Your task to perform on an android device: allow cookies in the chrome app Image 0: 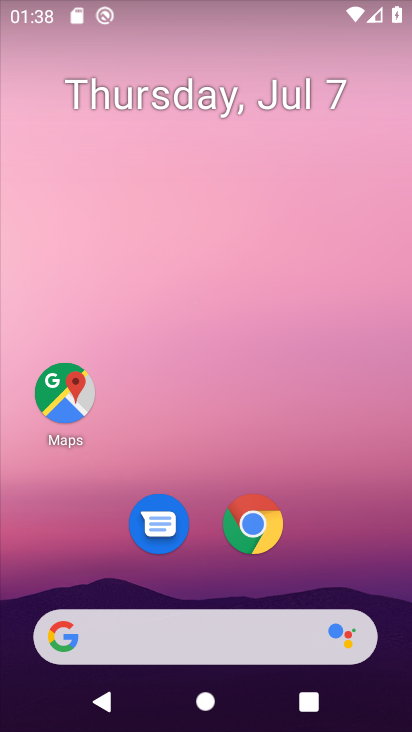
Step 0: click (254, 529)
Your task to perform on an android device: allow cookies in the chrome app Image 1: 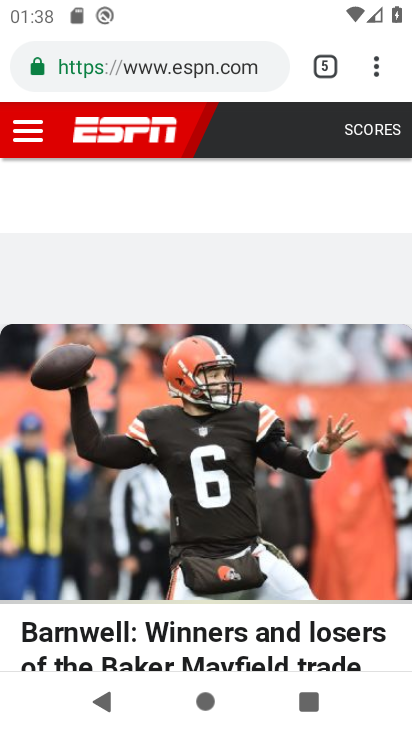
Step 1: click (371, 63)
Your task to perform on an android device: allow cookies in the chrome app Image 2: 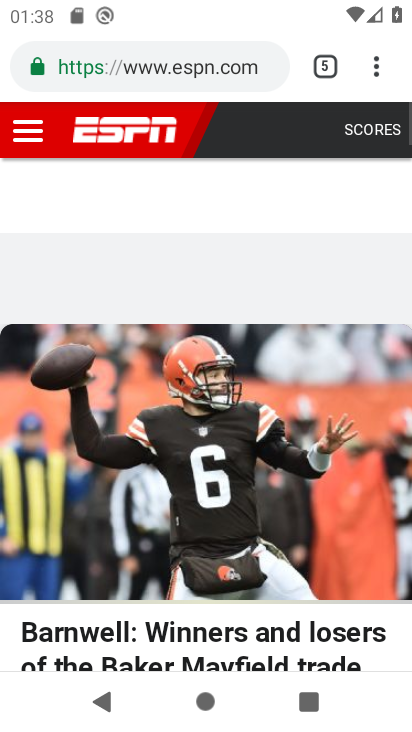
Step 2: click (371, 64)
Your task to perform on an android device: allow cookies in the chrome app Image 3: 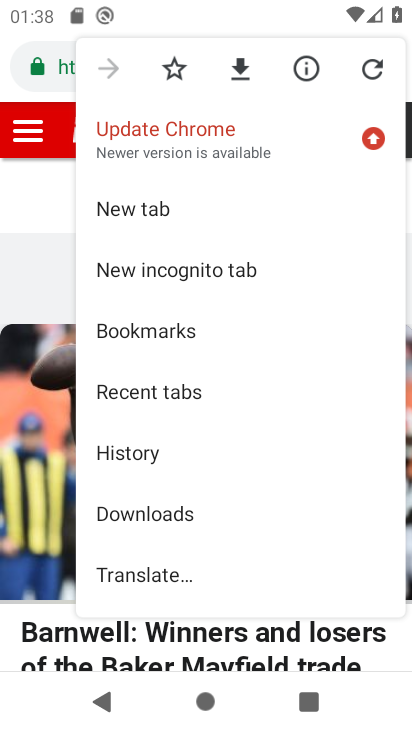
Step 3: drag from (306, 536) to (250, 134)
Your task to perform on an android device: allow cookies in the chrome app Image 4: 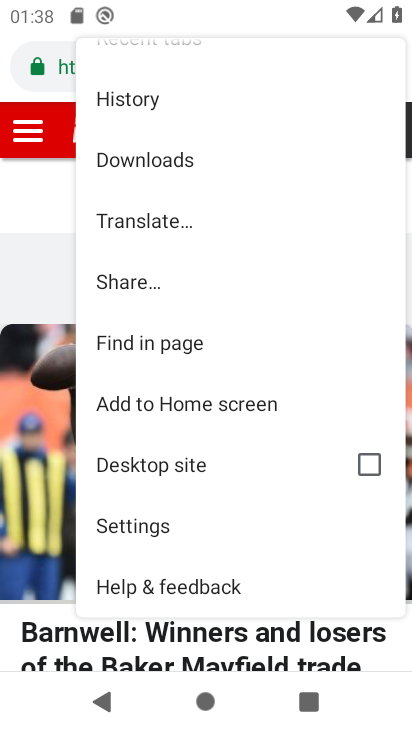
Step 4: click (162, 522)
Your task to perform on an android device: allow cookies in the chrome app Image 5: 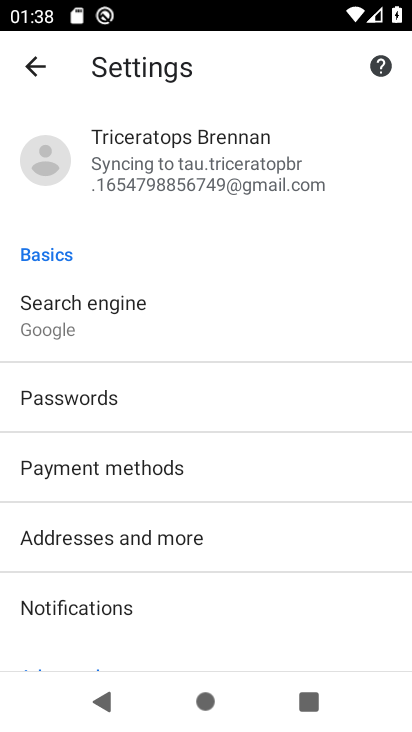
Step 5: drag from (262, 541) to (248, 170)
Your task to perform on an android device: allow cookies in the chrome app Image 6: 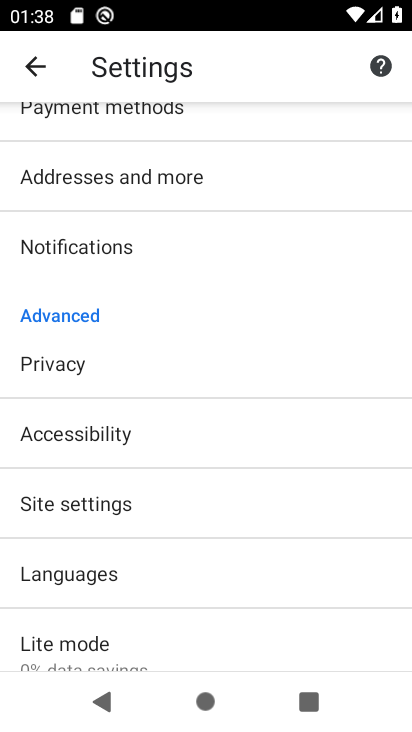
Step 6: click (115, 499)
Your task to perform on an android device: allow cookies in the chrome app Image 7: 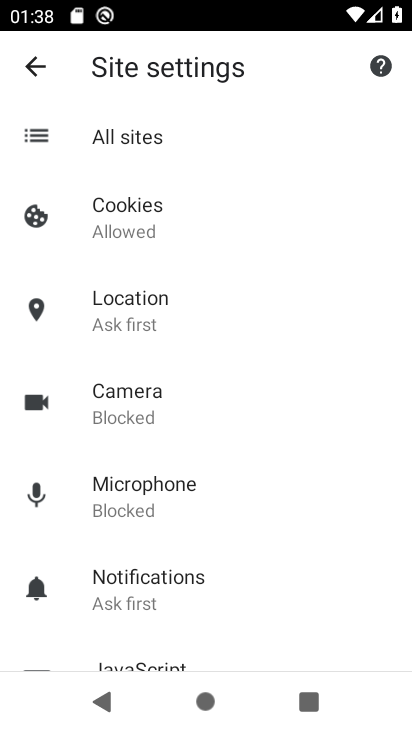
Step 7: task complete